Your task to perform on an android device: turn off location history Image 0: 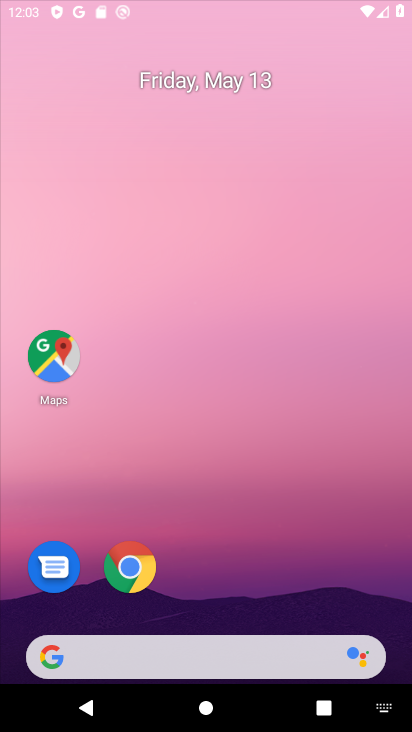
Step 0: drag from (176, 613) to (213, 127)
Your task to perform on an android device: turn off location history Image 1: 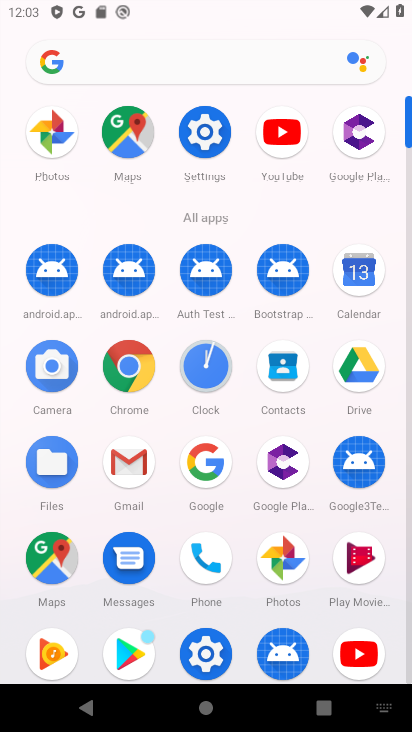
Step 1: click (209, 143)
Your task to perform on an android device: turn off location history Image 2: 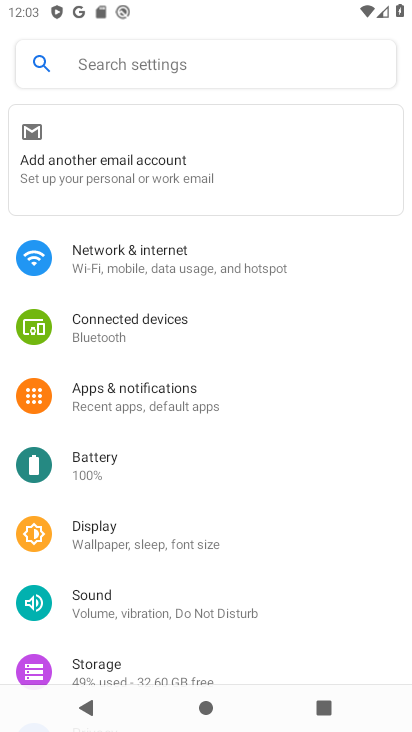
Step 2: drag from (237, 527) to (314, 181)
Your task to perform on an android device: turn off location history Image 3: 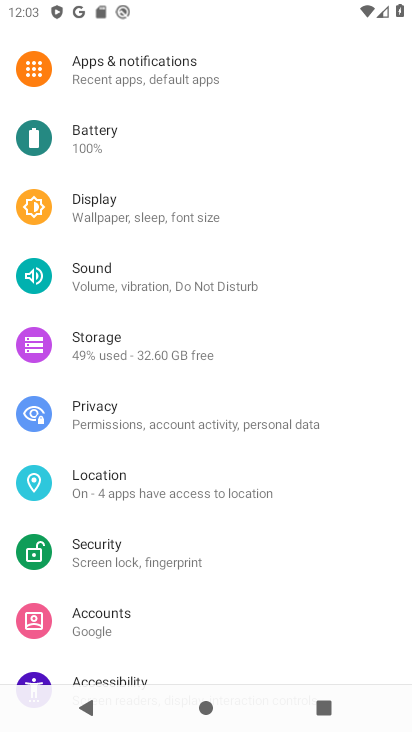
Step 3: drag from (187, 191) to (211, 61)
Your task to perform on an android device: turn off location history Image 4: 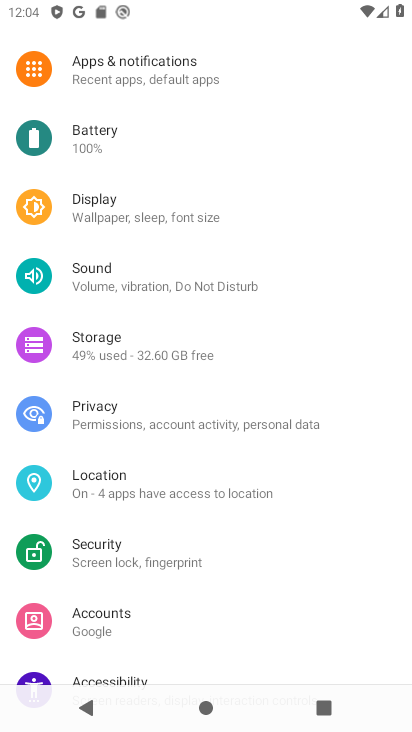
Step 4: drag from (213, 654) to (279, 226)
Your task to perform on an android device: turn off location history Image 5: 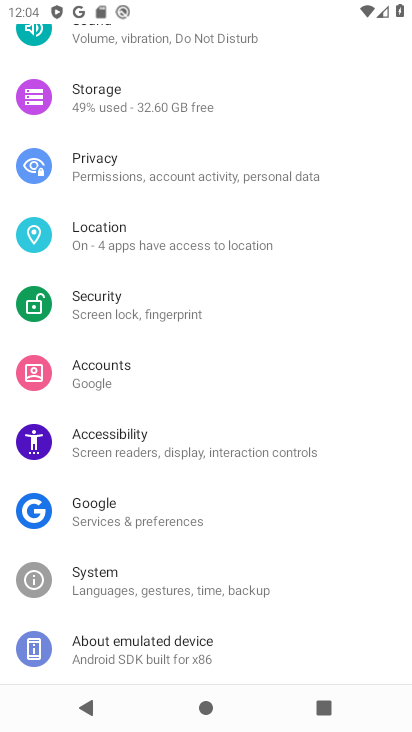
Step 5: click (127, 244)
Your task to perform on an android device: turn off location history Image 6: 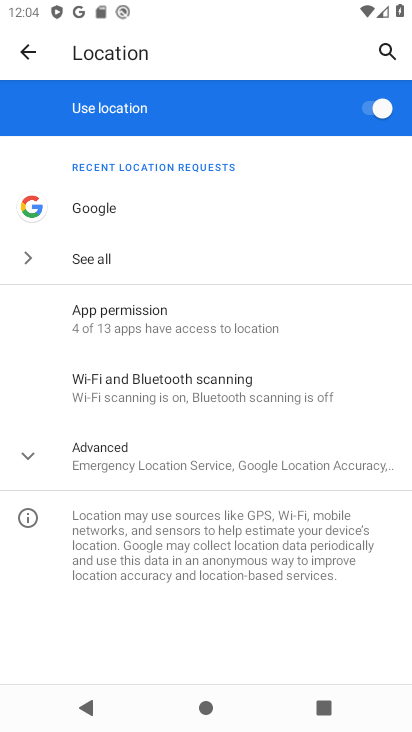
Step 6: drag from (191, 516) to (256, 235)
Your task to perform on an android device: turn off location history Image 7: 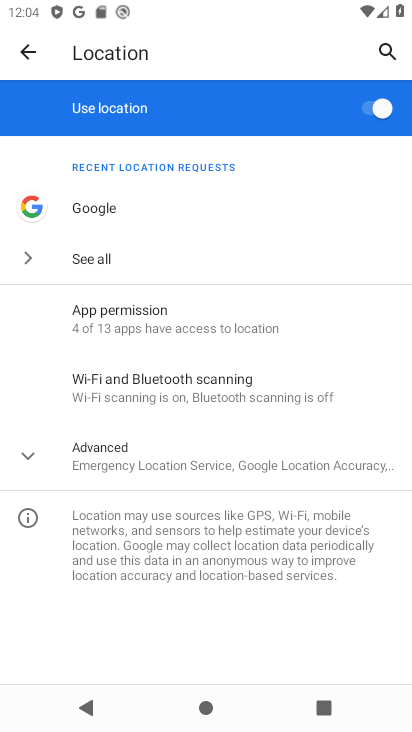
Step 7: drag from (224, 609) to (220, 276)
Your task to perform on an android device: turn off location history Image 8: 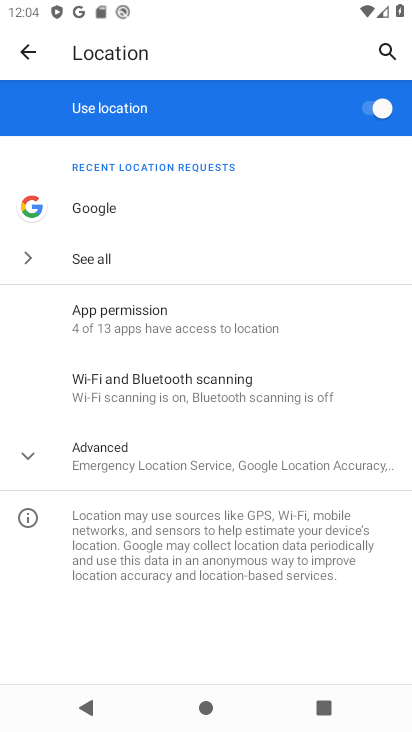
Step 8: click (170, 456)
Your task to perform on an android device: turn off location history Image 9: 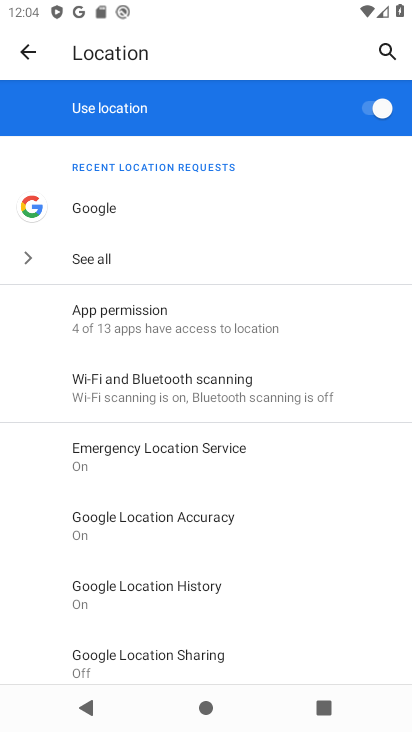
Step 9: click (213, 589)
Your task to perform on an android device: turn off location history Image 10: 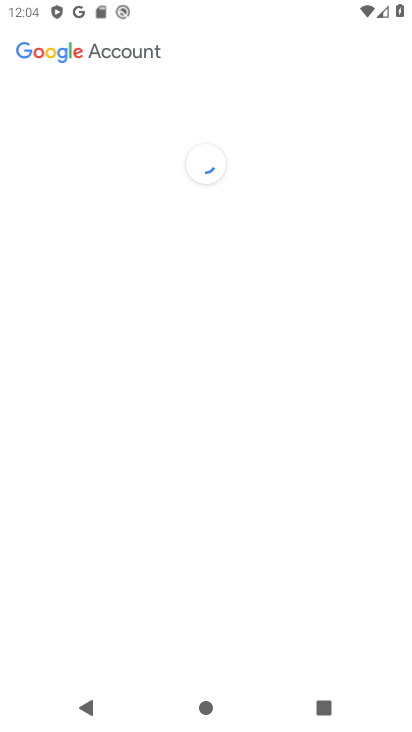
Step 10: drag from (183, 611) to (181, 108)
Your task to perform on an android device: turn off location history Image 11: 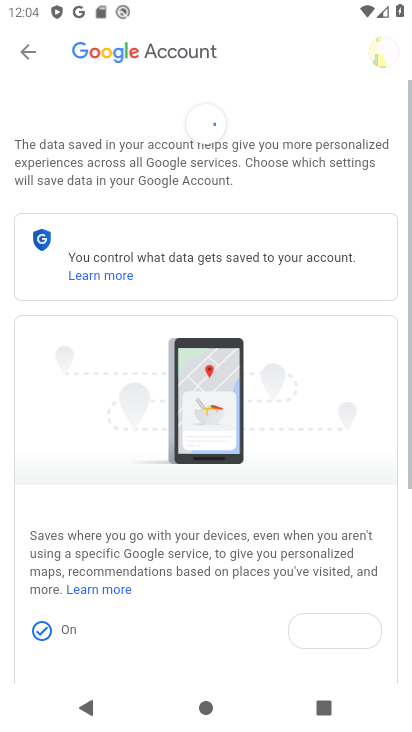
Step 11: drag from (175, 553) to (153, 55)
Your task to perform on an android device: turn off location history Image 12: 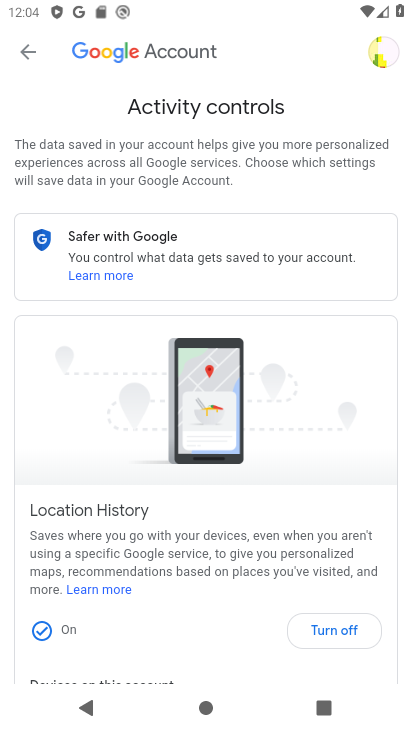
Step 12: drag from (240, 579) to (229, 109)
Your task to perform on an android device: turn off location history Image 13: 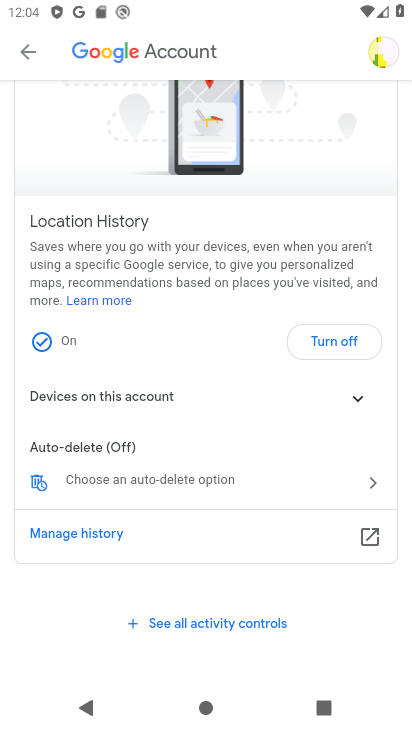
Step 13: drag from (197, 622) to (225, 269)
Your task to perform on an android device: turn off location history Image 14: 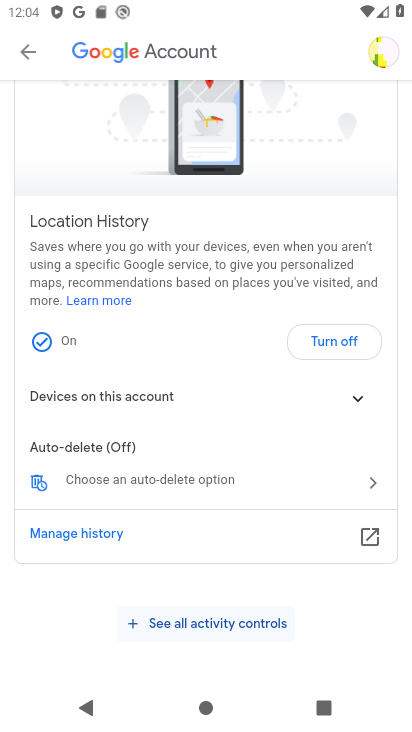
Step 14: drag from (253, 585) to (256, 425)
Your task to perform on an android device: turn off location history Image 15: 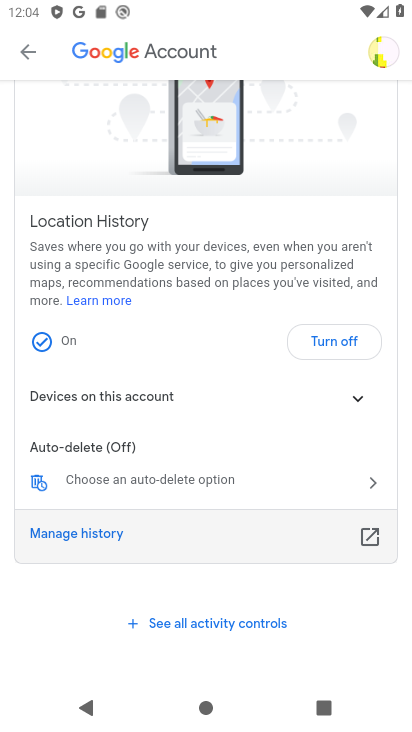
Step 15: click (325, 334)
Your task to perform on an android device: turn off location history Image 16: 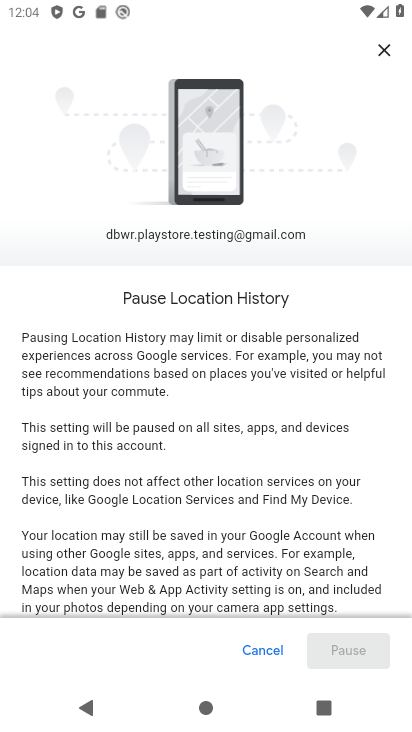
Step 16: drag from (258, 603) to (388, 73)
Your task to perform on an android device: turn off location history Image 17: 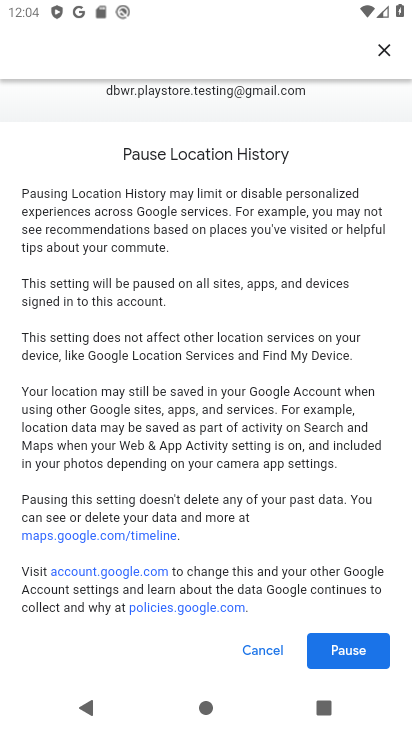
Step 17: click (350, 653)
Your task to perform on an android device: turn off location history Image 18: 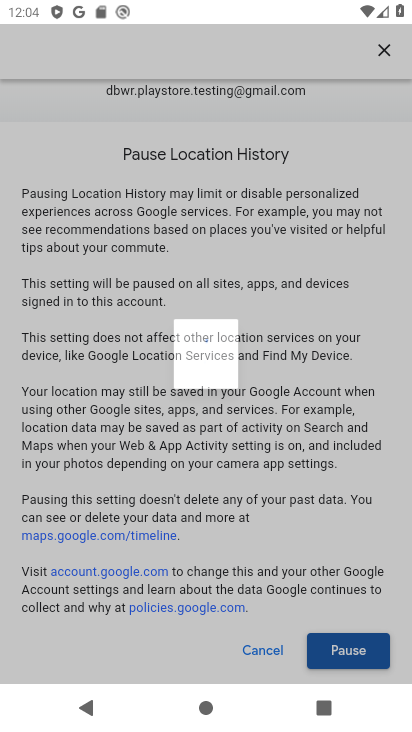
Step 18: click (361, 644)
Your task to perform on an android device: turn off location history Image 19: 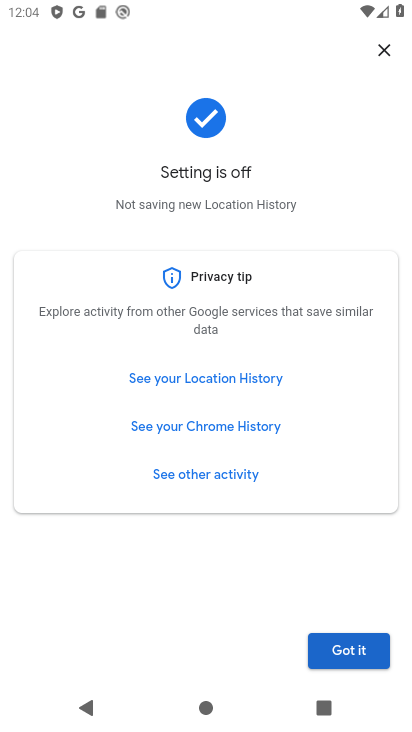
Step 19: task complete